Your task to perform on an android device: delete a single message in the gmail app Image 0: 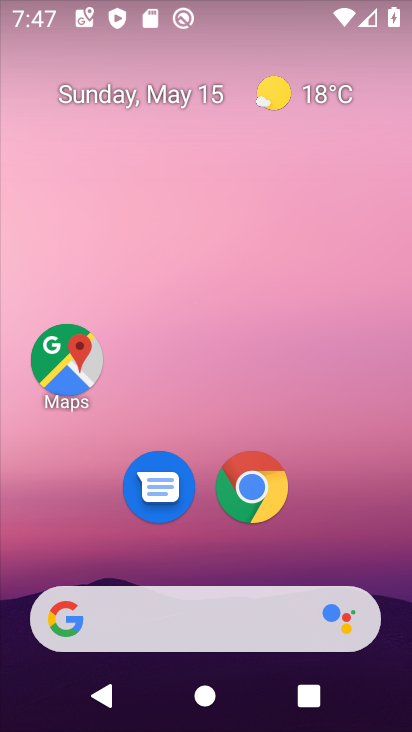
Step 0: drag from (399, 630) to (398, 109)
Your task to perform on an android device: delete a single message in the gmail app Image 1: 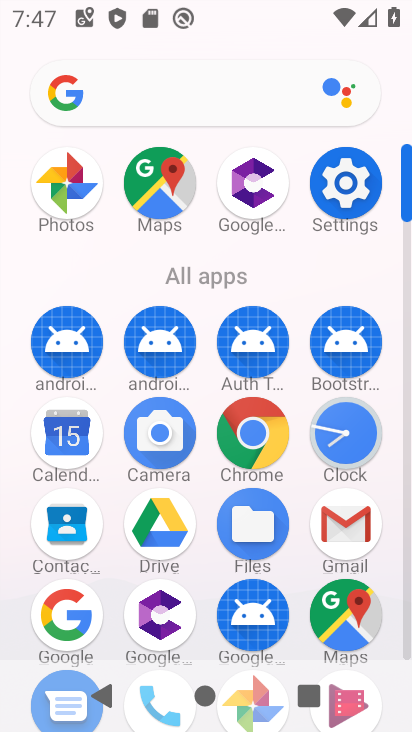
Step 1: click (341, 530)
Your task to perform on an android device: delete a single message in the gmail app Image 2: 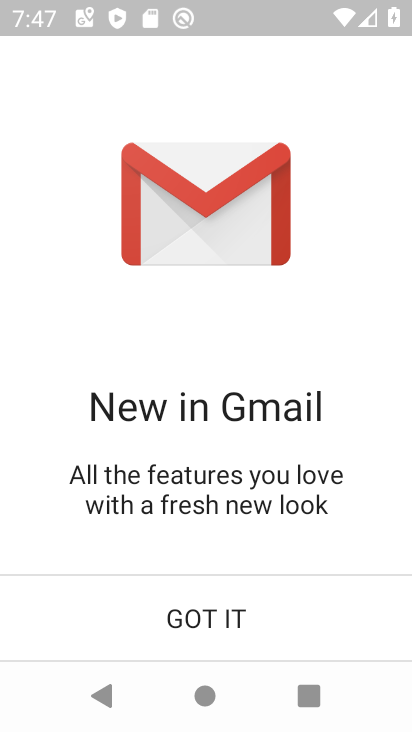
Step 2: click (227, 620)
Your task to perform on an android device: delete a single message in the gmail app Image 3: 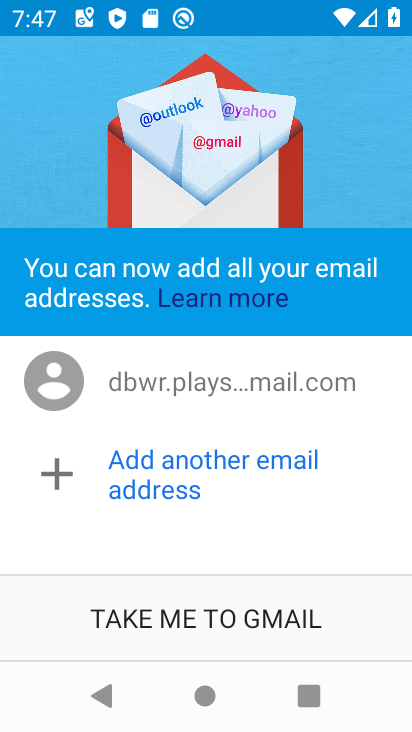
Step 3: click (227, 620)
Your task to perform on an android device: delete a single message in the gmail app Image 4: 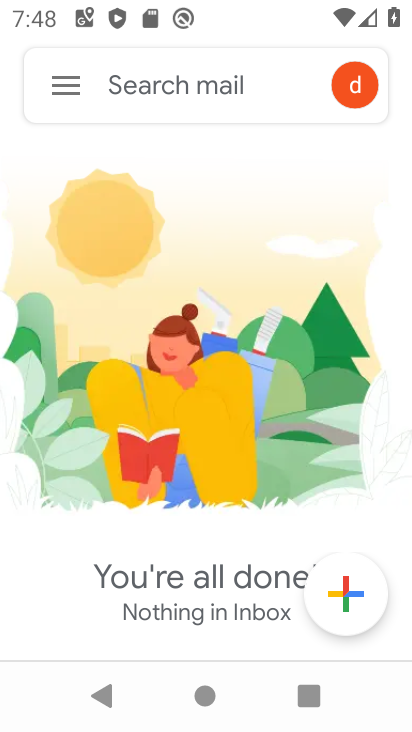
Step 4: task complete